Your task to perform on an android device: Go to Yahoo.com Image 0: 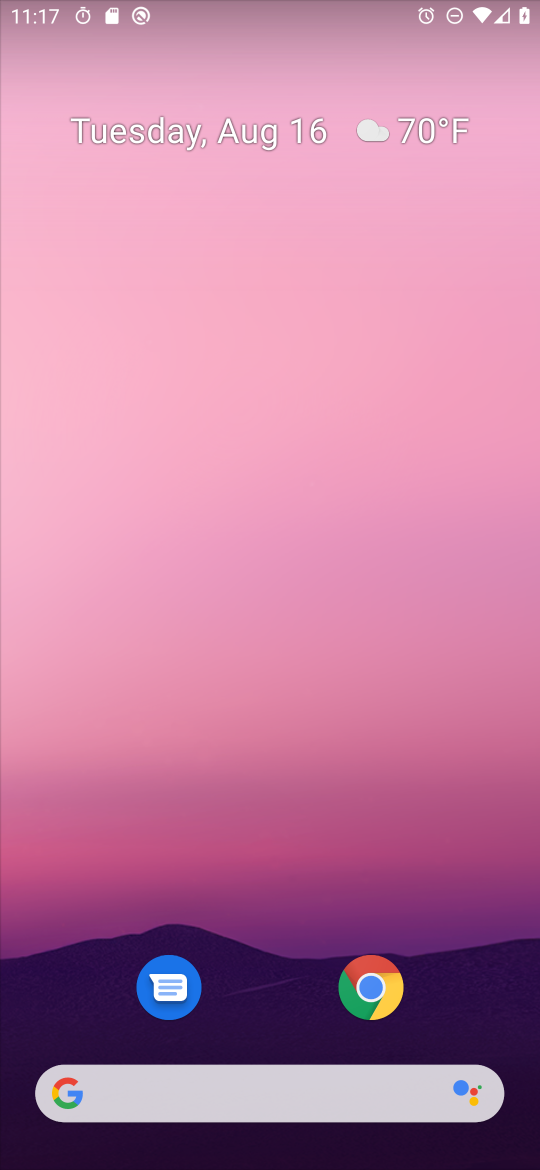
Step 0: click (114, 1076)
Your task to perform on an android device: Go to Yahoo.com Image 1: 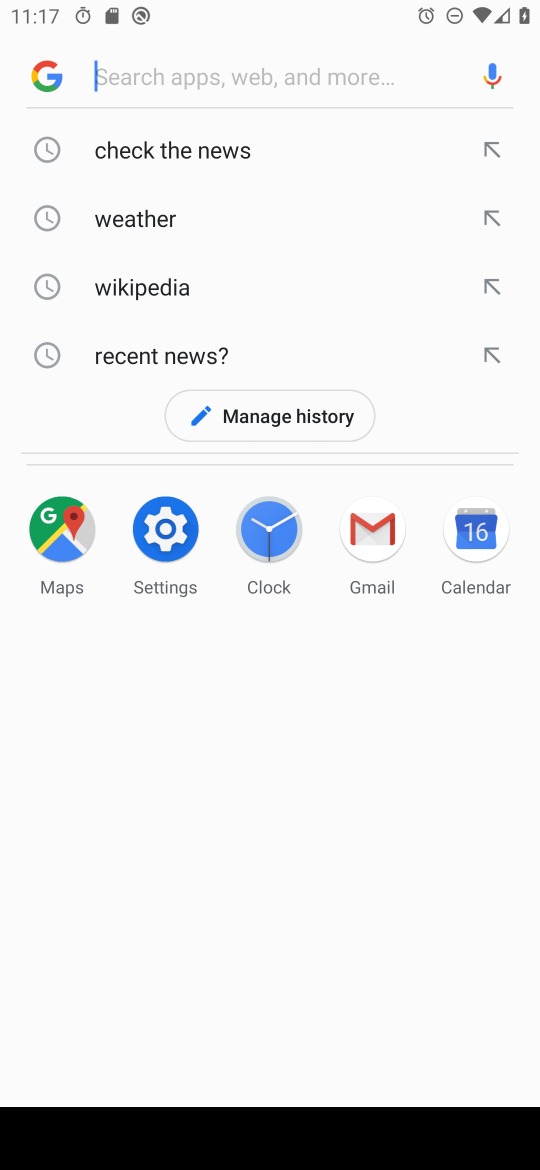
Step 1: type "Yahoo.com"
Your task to perform on an android device: Go to Yahoo.com Image 2: 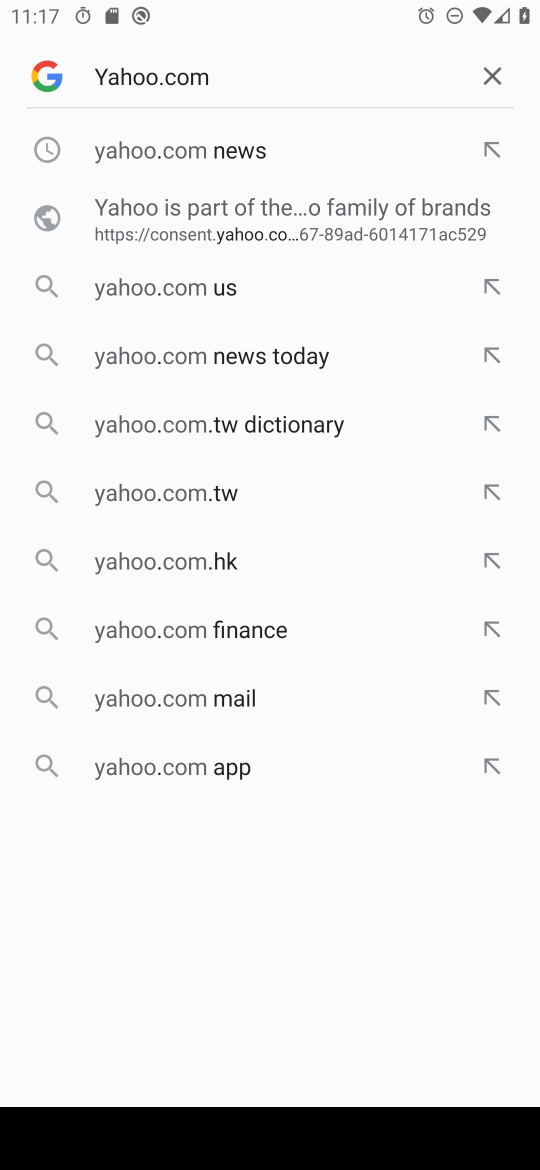
Step 2: type ""
Your task to perform on an android device: Go to Yahoo.com Image 3: 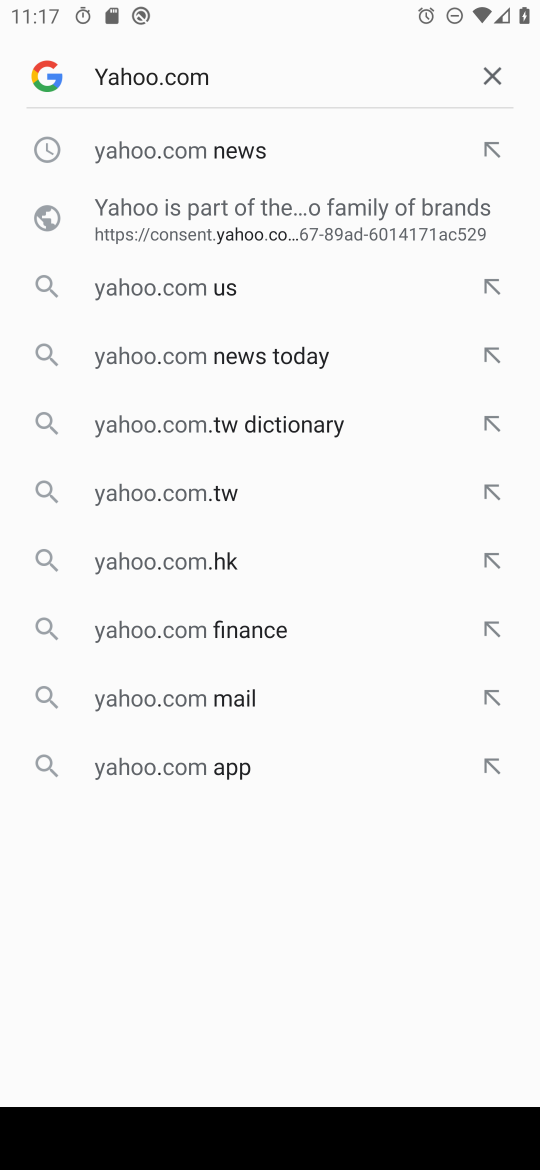
Step 3: task complete